Your task to perform on an android device: turn notification dots on Image 0: 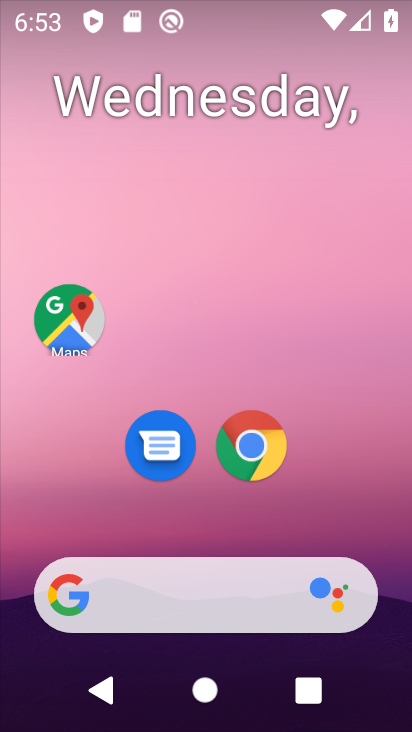
Step 0: press home button
Your task to perform on an android device: turn notification dots on Image 1: 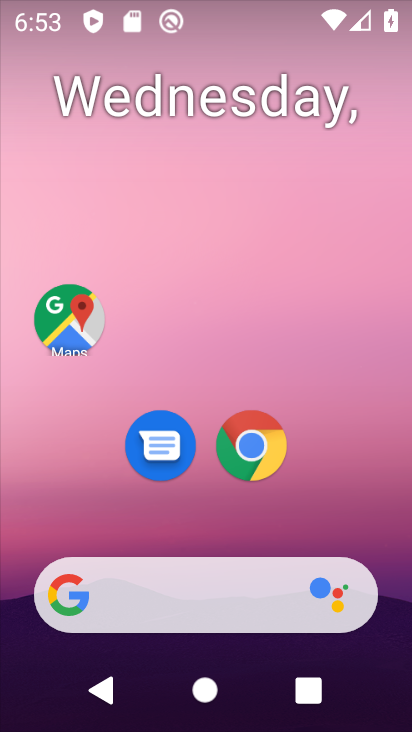
Step 1: drag from (368, 486) to (328, 133)
Your task to perform on an android device: turn notification dots on Image 2: 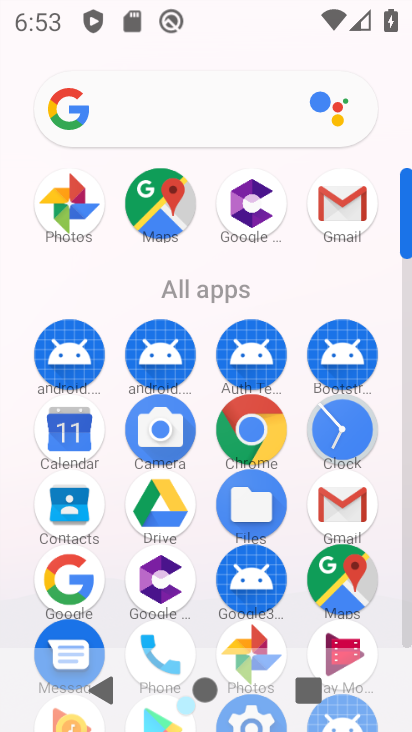
Step 2: click (405, 638)
Your task to perform on an android device: turn notification dots on Image 3: 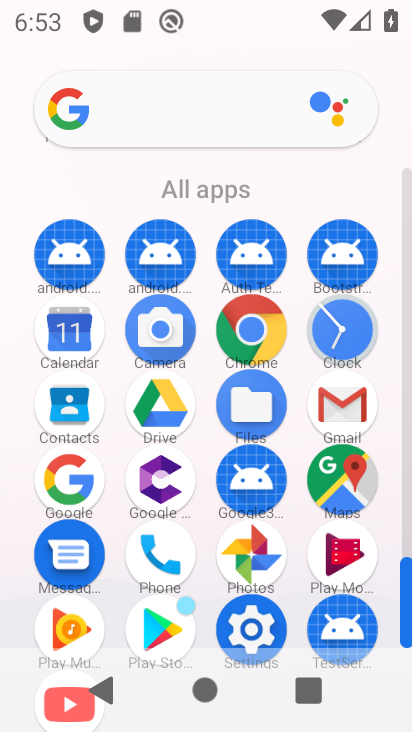
Step 3: click (405, 638)
Your task to perform on an android device: turn notification dots on Image 4: 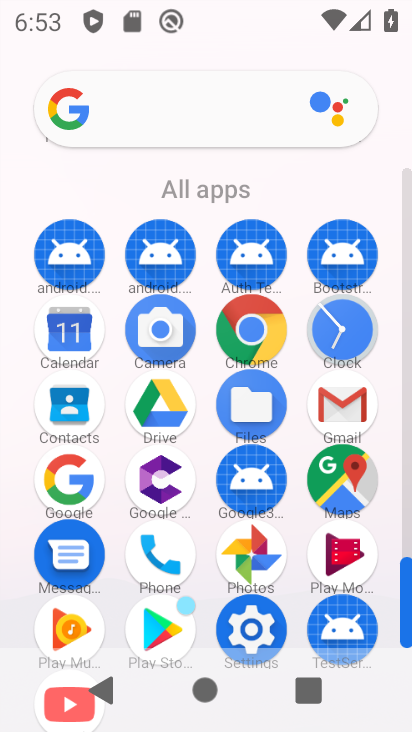
Step 4: click (405, 638)
Your task to perform on an android device: turn notification dots on Image 5: 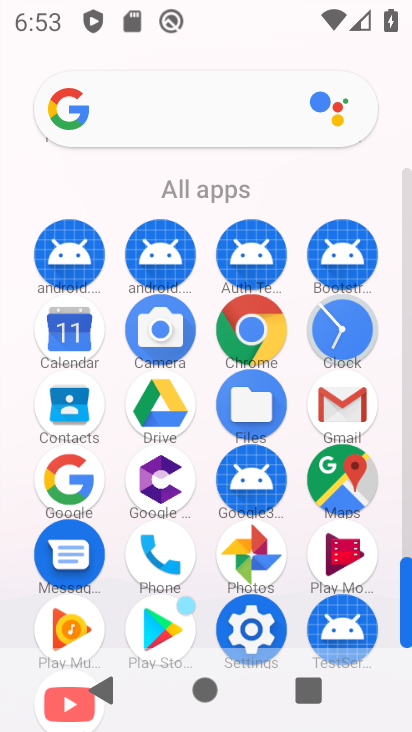
Step 5: click (270, 628)
Your task to perform on an android device: turn notification dots on Image 6: 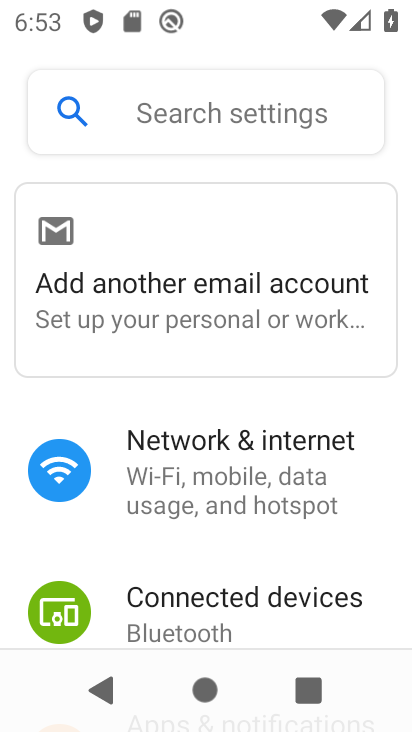
Step 6: drag from (197, 332) to (197, 201)
Your task to perform on an android device: turn notification dots on Image 7: 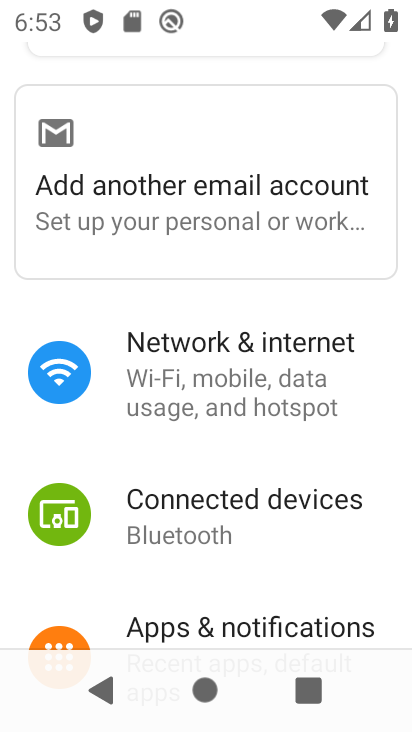
Step 7: drag from (192, 498) to (185, 288)
Your task to perform on an android device: turn notification dots on Image 8: 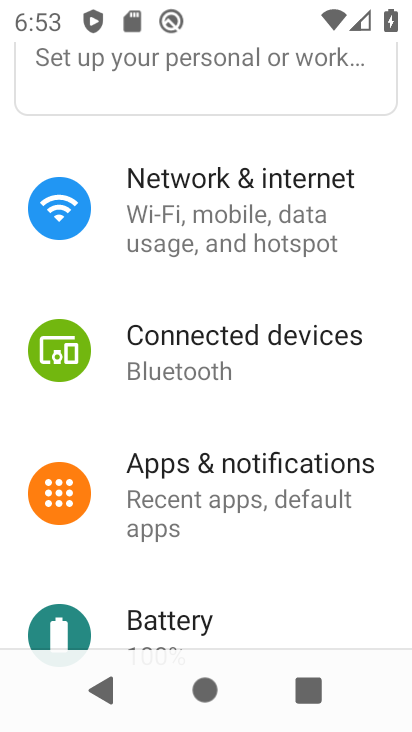
Step 8: drag from (185, 289) to (178, 116)
Your task to perform on an android device: turn notification dots on Image 9: 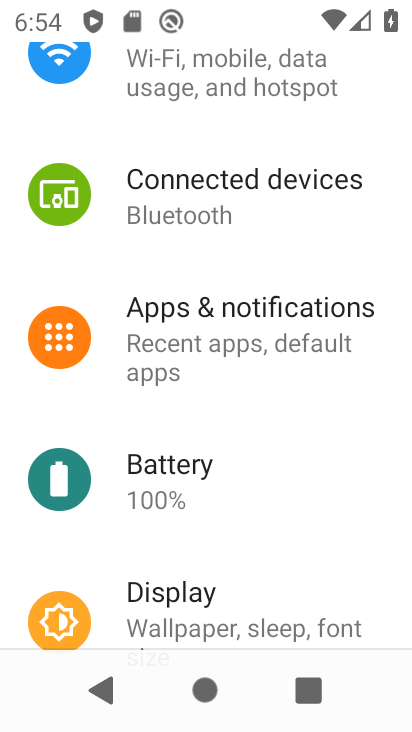
Step 9: drag from (183, 426) to (180, 325)
Your task to perform on an android device: turn notification dots on Image 10: 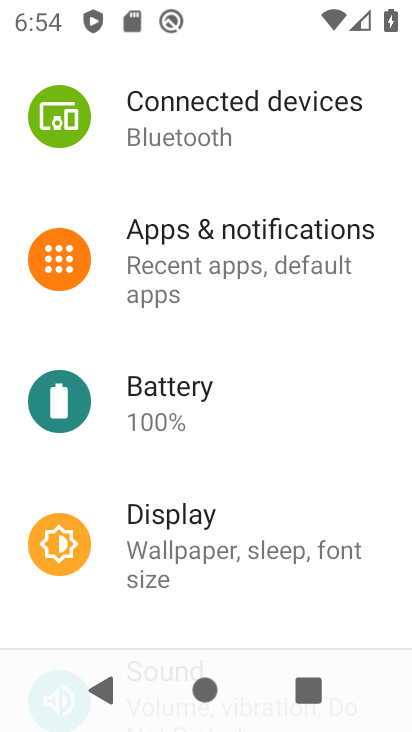
Step 10: click (200, 286)
Your task to perform on an android device: turn notification dots on Image 11: 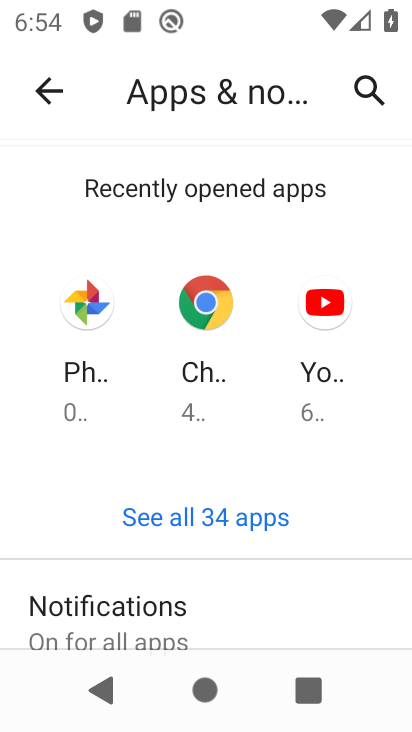
Step 11: drag from (225, 577) to (208, 462)
Your task to perform on an android device: turn notification dots on Image 12: 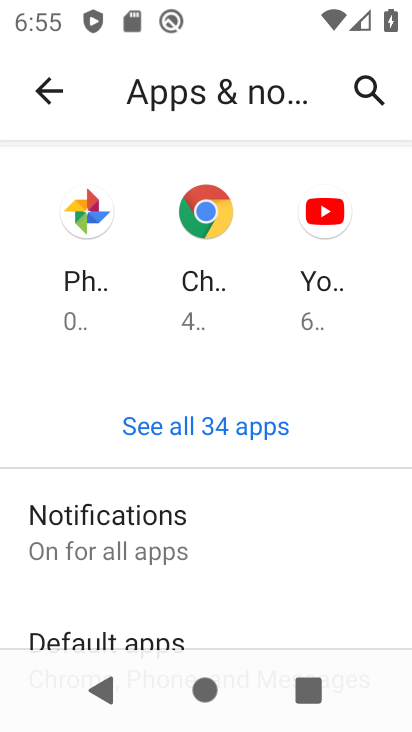
Step 12: drag from (163, 575) to (144, 489)
Your task to perform on an android device: turn notification dots on Image 13: 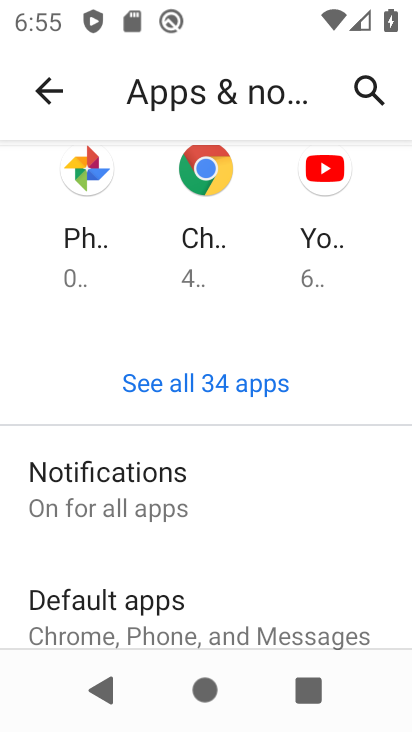
Step 13: click (144, 494)
Your task to perform on an android device: turn notification dots on Image 14: 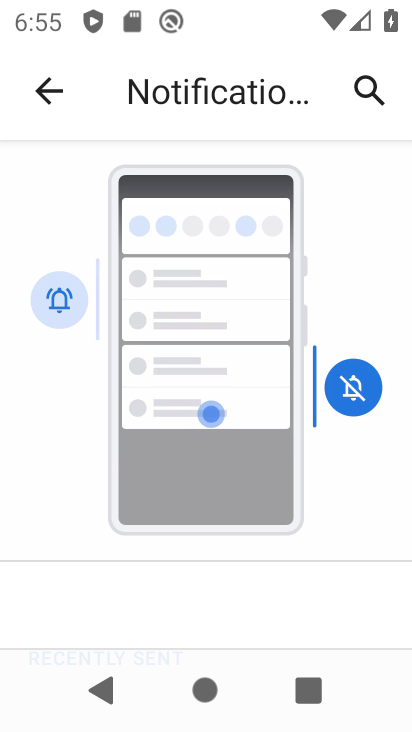
Step 14: drag from (209, 577) to (214, 193)
Your task to perform on an android device: turn notification dots on Image 15: 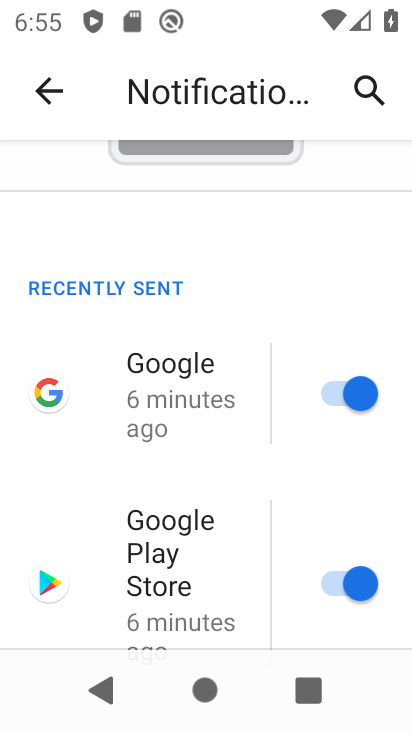
Step 15: drag from (227, 507) to (237, 251)
Your task to perform on an android device: turn notification dots on Image 16: 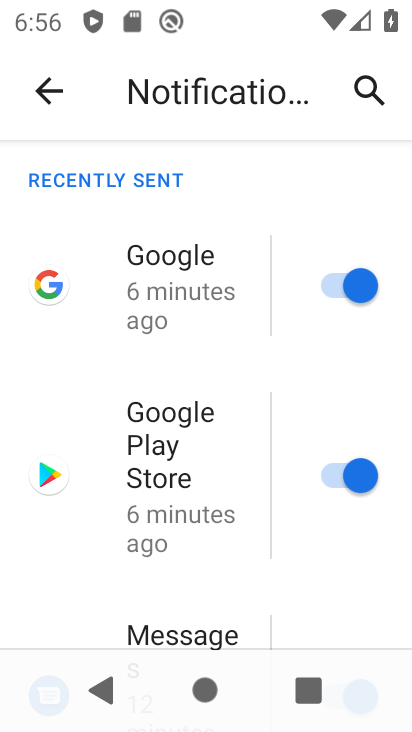
Step 16: drag from (184, 511) to (254, 183)
Your task to perform on an android device: turn notification dots on Image 17: 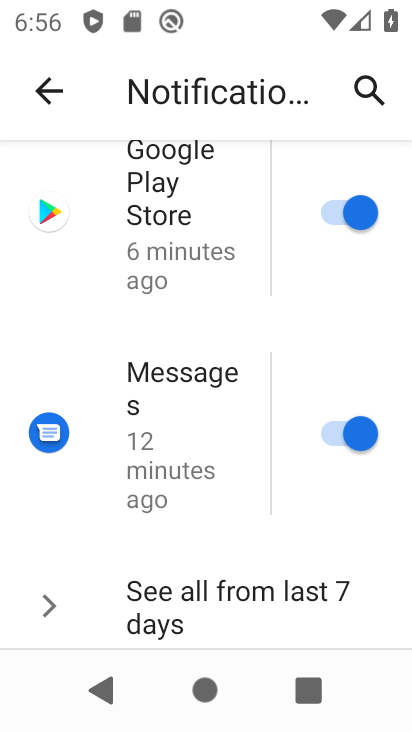
Step 17: drag from (140, 529) to (189, 162)
Your task to perform on an android device: turn notification dots on Image 18: 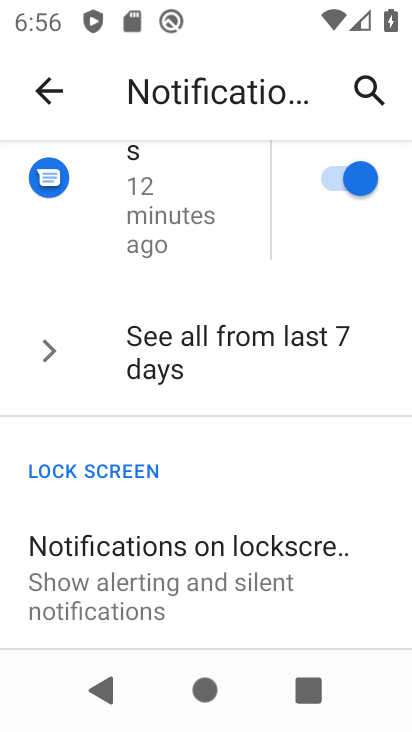
Step 18: drag from (143, 476) to (163, 211)
Your task to perform on an android device: turn notification dots on Image 19: 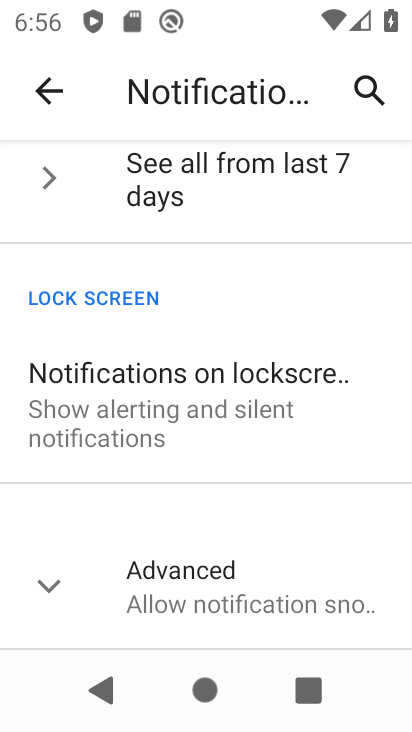
Step 19: click (178, 597)
Your task to perform on an android device: turn notification dots on Image 20: 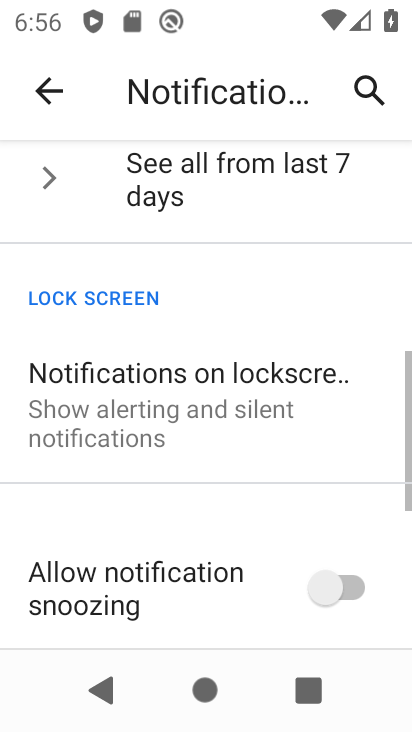
Step 20: task complete